Your task to perform on an android device: turn off airplane mode Image 0: 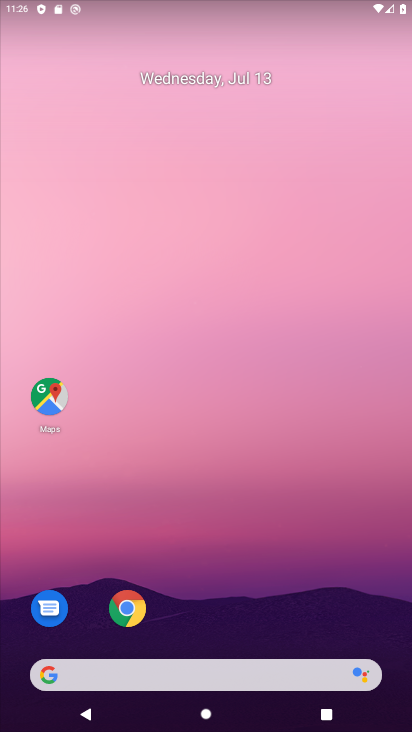
Step 0: drag from (357, 79) to (366, 403)
Your task to perform on an android device: turn off airplane mode Image 1: 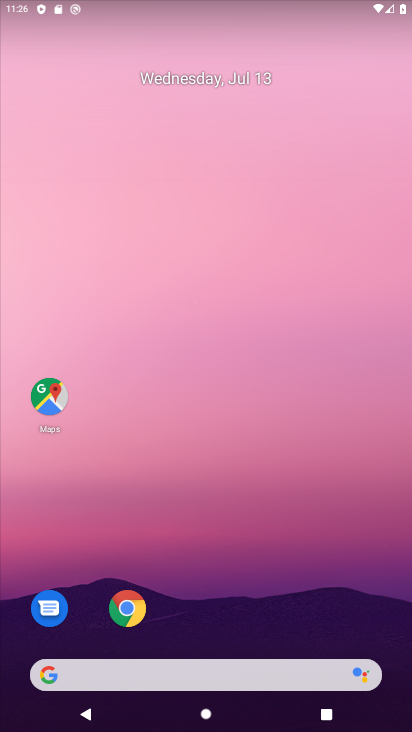
Step 1: task complete